Your task to perform on an android device: turn smart compose on in the gmail app Image 0: 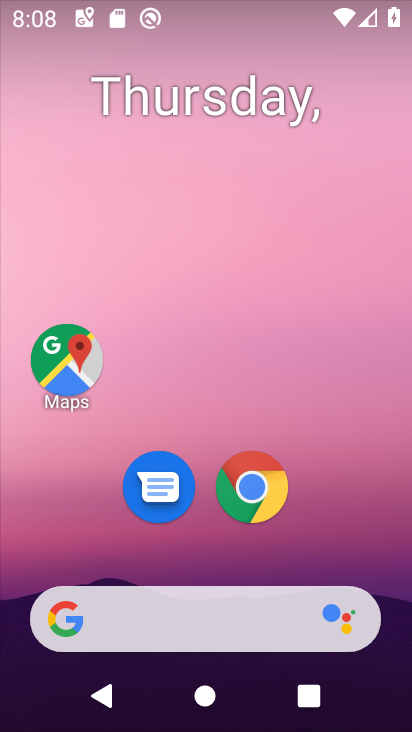
Step 0: drag from (217, 523) to (214, 38)
Your task to perform on an android device: turn smart compose on in the gmail app Image 1: 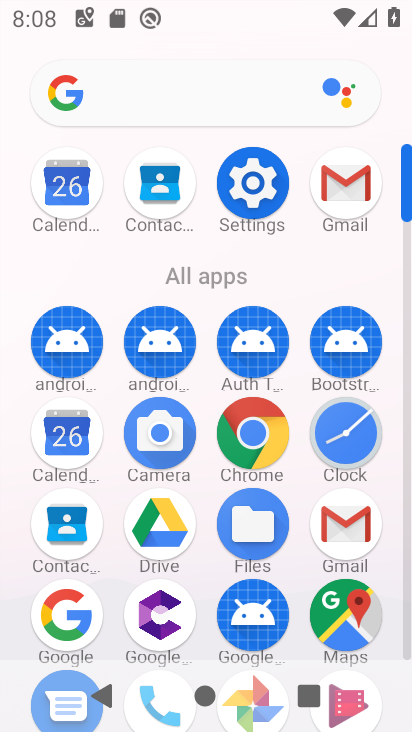
Step 1: click (350, 182)
Your task to perform on an android device: turn smart compose on in the gmail app Image 2: 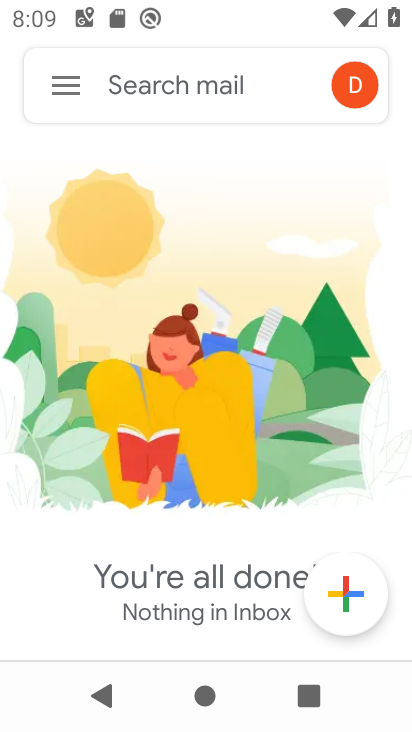
Step 2: press back button
Your task to perform on an android device: turn smart compose on in the gmail app Image 3: 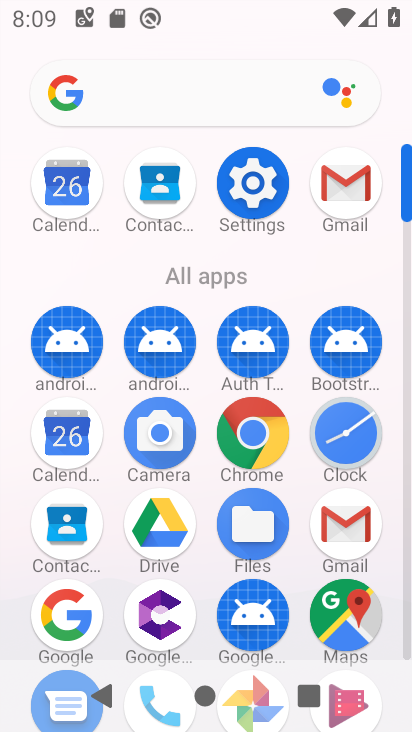
Step 3: click (342, 179)
Your task to perform on an android device: turn smart compose on in the gmail app Image 4: 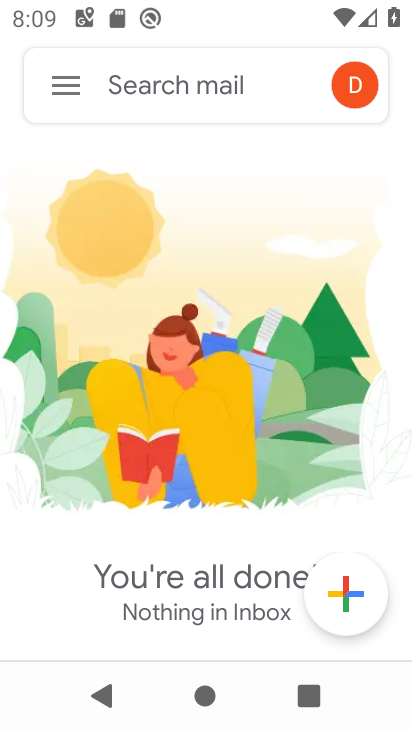
Step 4: click (66, 89)
Your task to perform on an android device: turn smart compose on in the gmail app Image 5: 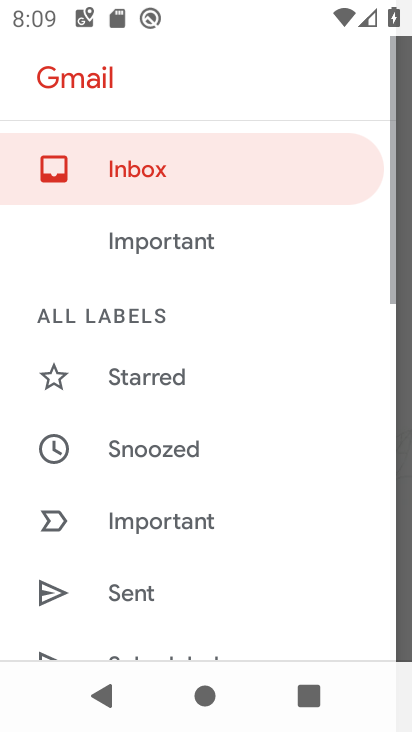
Step 5: drag from (308, 597) to (287, 41)
Your task to perform on an android device: turn smart compose on in the gmail app Image 6: 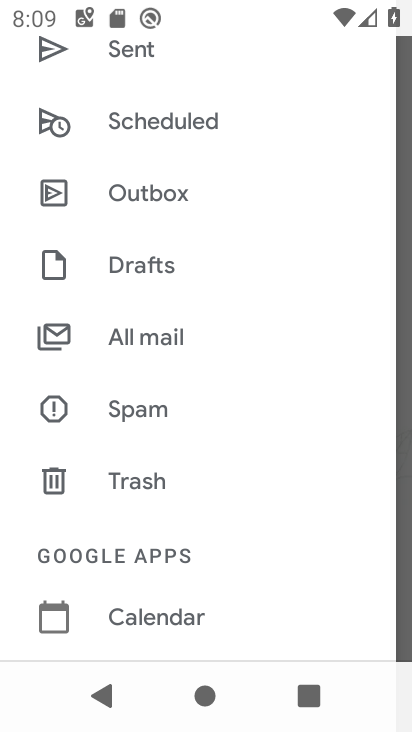
Step 6: drag from (191, 588) to (258, 23)
Your task to perform on an android device: turn smart compose on in the gmail app Image 7: 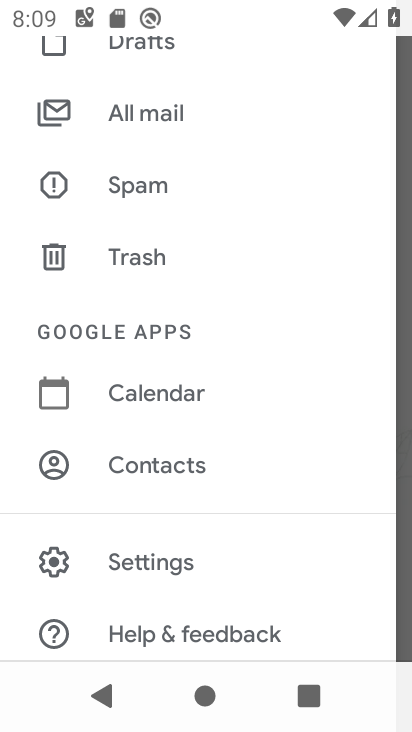
Step 7: click (142, 557)
Your task to perform on an android device: turn smart compose on in the gmail app Image 8: 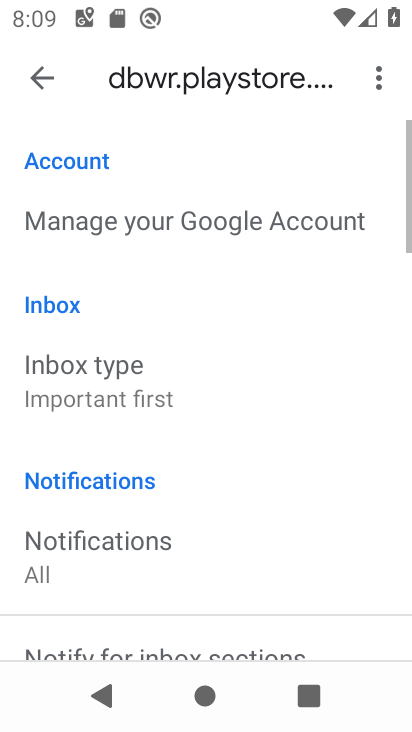
Step 8: task complete